Your task to perform on an android device: remove spam from my inbox in the gmail app Image 0: 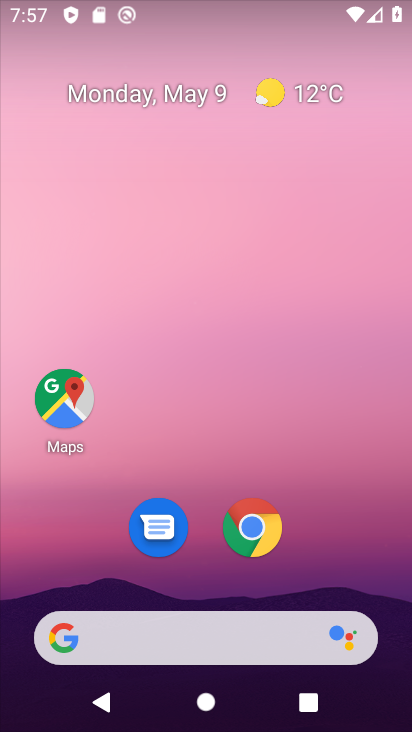
Step 0: drag from (324, 570) to (332, 96)
Your task to perform on an android device: remove spam from my inbox in the gmail app Image 1: 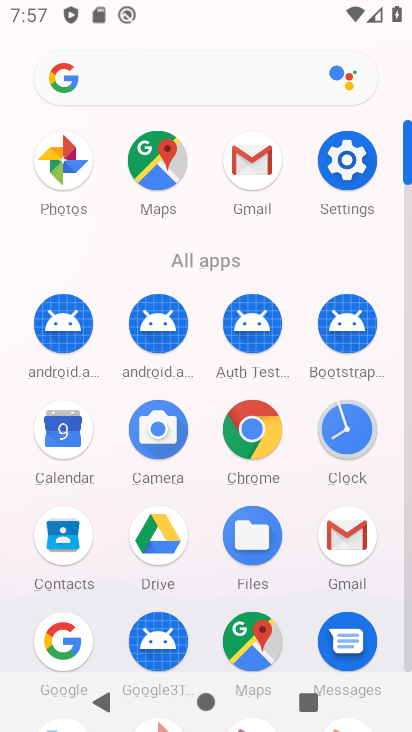
Step 1: click (245, 172)
Your task to perform on an android device: remove spam from my inbox in the gmail app Image 2: 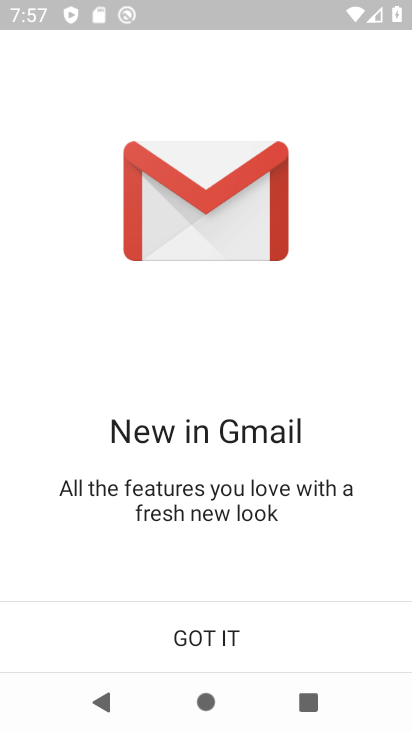
Step 2: click (255, 637)
Your task to perform on an android device: remove spam from my inbox in the gmail app Image 3: 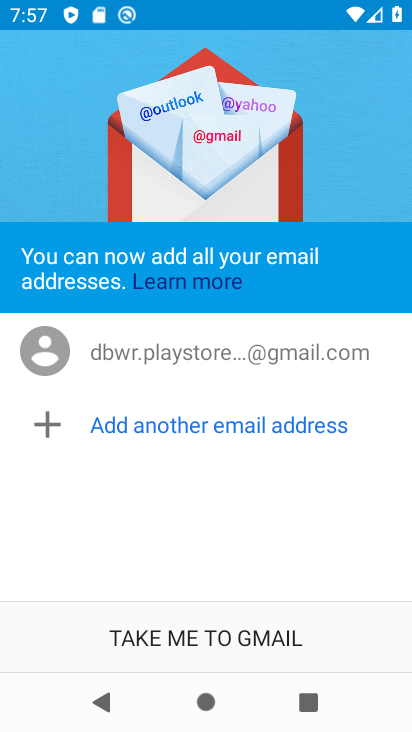
Step 3: click (263, 659)
Your task to perform on an android device: remove spam from my inbox in the gmail app Image 4: 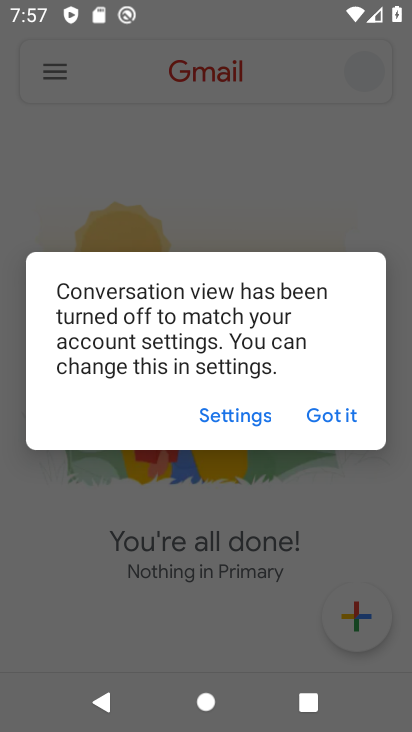
Step 4: click (329, 411)
Your task to perform on an android device: remove spam from my inbox in the gmail app Image 5: 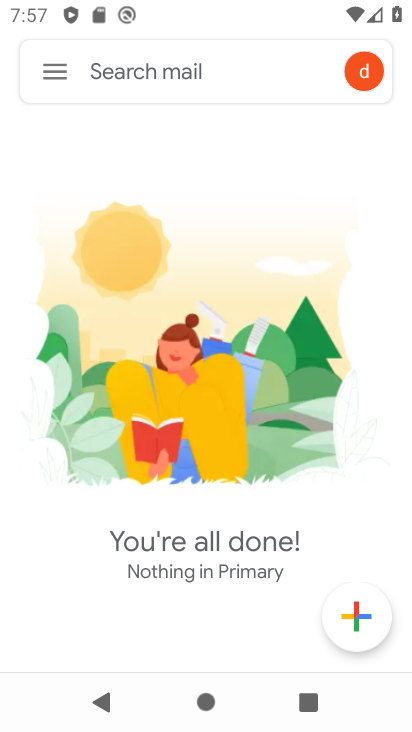
Step 5: click (60, 64)
Your task to perform on an android device: remove spam from my inbox in the gmail app Image 6: 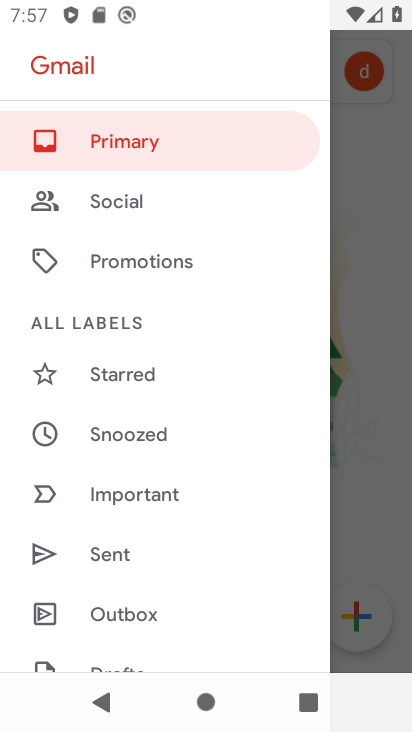
Step 6: drag from (161, 549) to (153, 73)
Your task to perform on an android device: remove spam from my inbox in the gmail app Image 7: 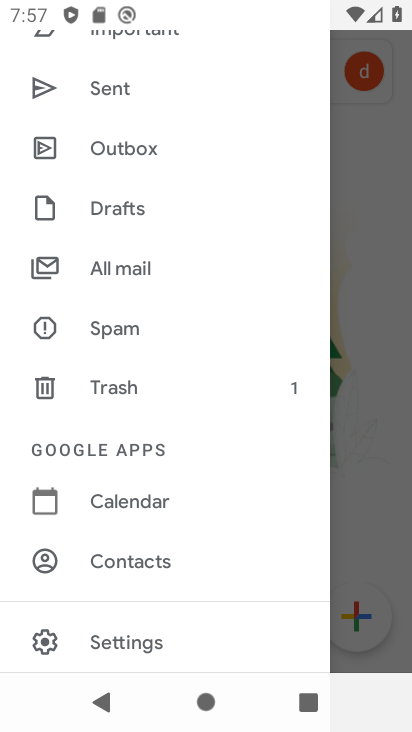
Step 7: click (168, 331)
Your task to perform on an android device: remove spam from my inbox in the gmail app Image 8: 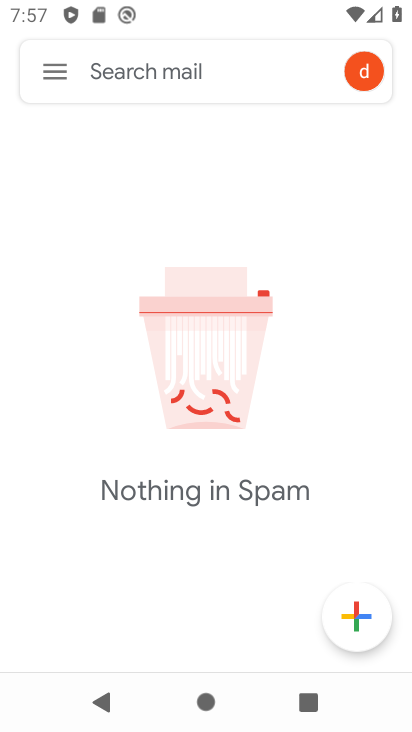
Step 8: task complete